Your task to perform on an android device: check android version Image 0: 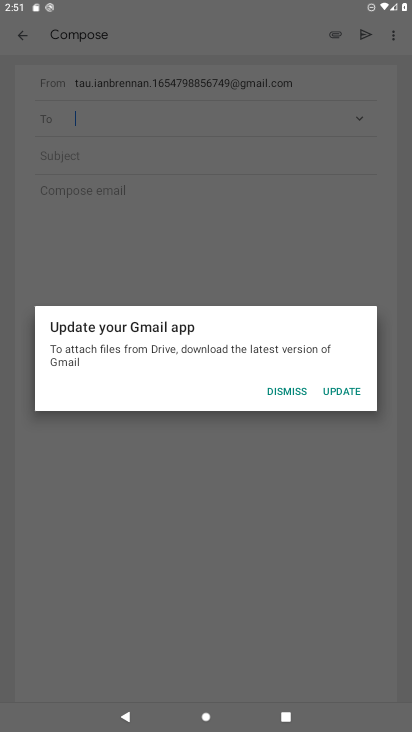
Step 0: press home button
Your task to perform on an android device: check android version Image 1: 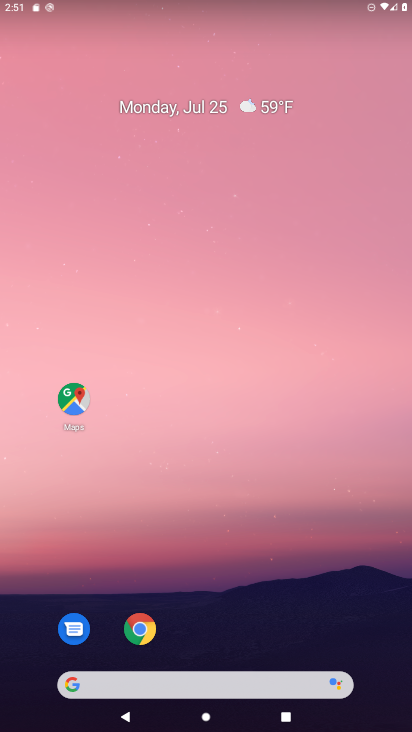
Step 1: drag from (317, 594) to (266, 114)
Your task to perform on an android device: check android version Image 2: 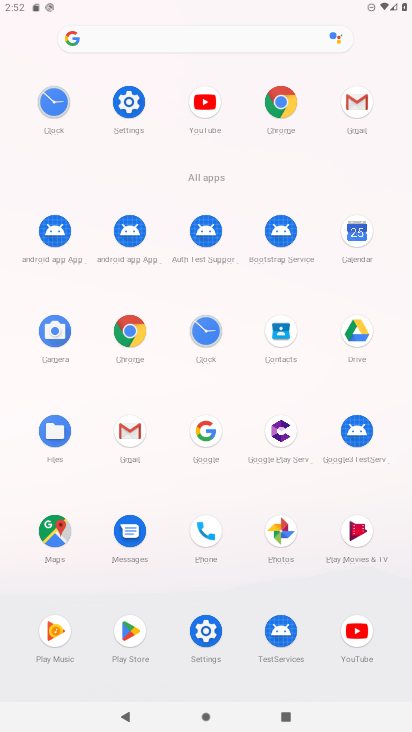
Step 2: click (200, 629)
Your task to perform on an android device: check android version Image 3: 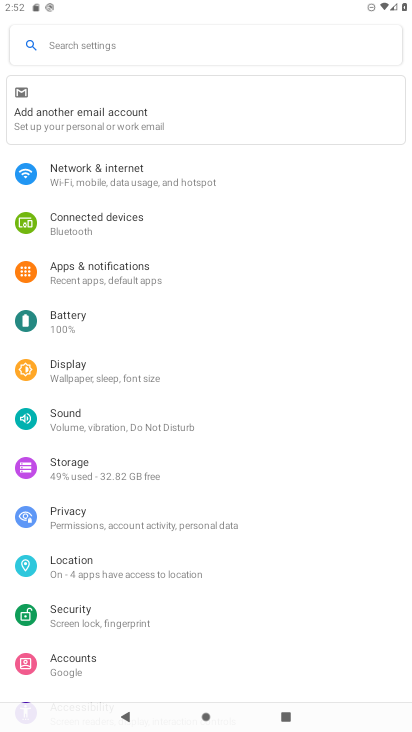
Step 3: drag from (167, 643) to (125, 399)
Your task to perform on an android device: check android version Image 4: 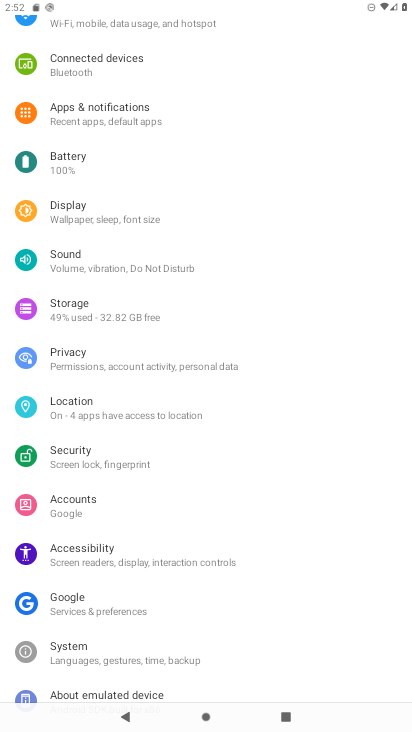
Step 4: click (156, 690)
Your task to perform on an android device: check android version Image 5: 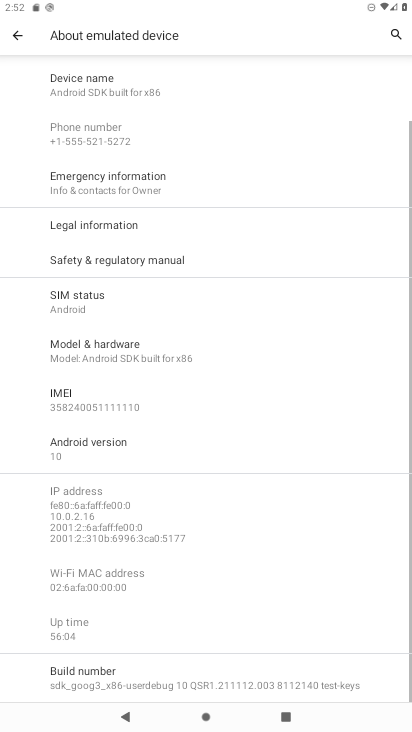
Step 5: click (100, 448)
Your task to perform on an android device: check android version Image 6: 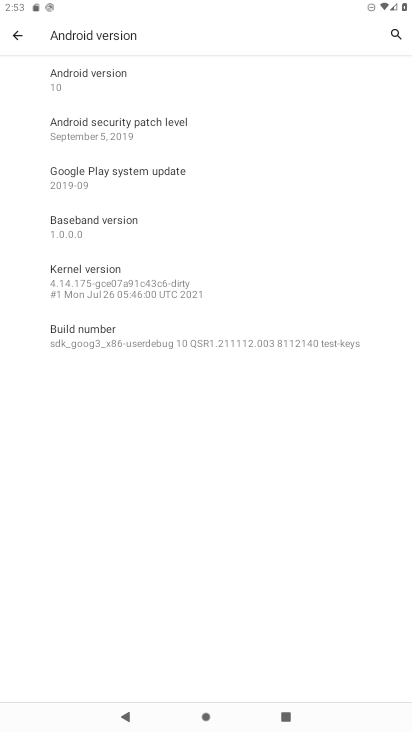
Step 6: task complete